Your task to perform on an android device: remove spam from my inbox in the gmail app Image 0: 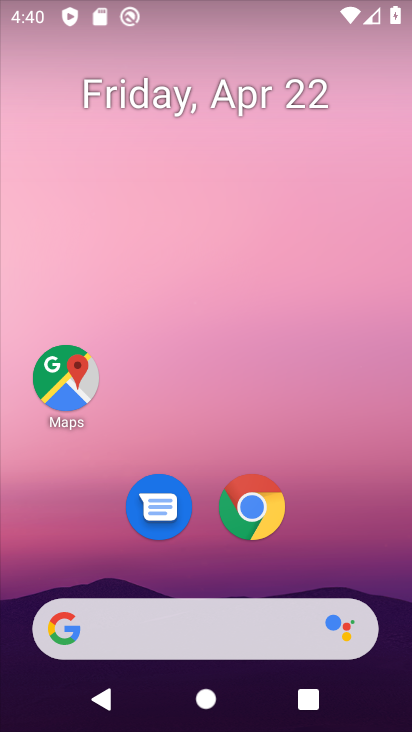
Step 0: click (279, 439)
Your task to perform on an android device: remove spam from my inbox in the gmail app Image 1: 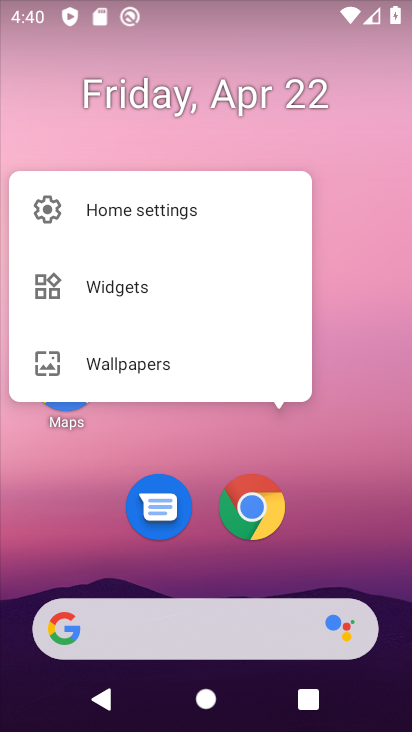
Step 1: press home button
Your task to perform on an android device: remove spam from my inbox in the gmail app Image 2: 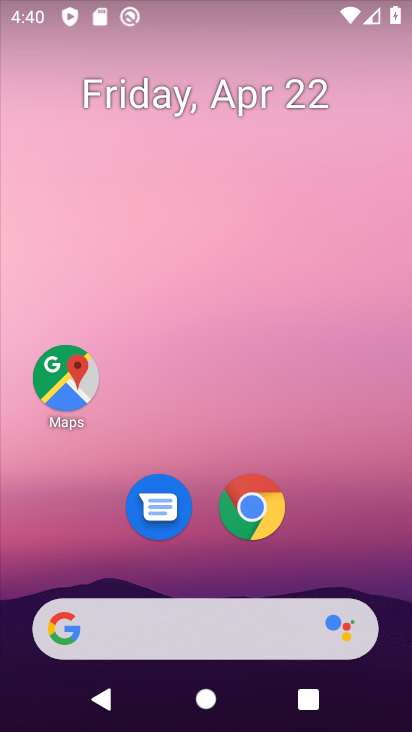
Step 2: drag from (245, 623) to (266, 176)
Your task to perform on an android device: remove spam from my inbox in the gmail app Image 3: 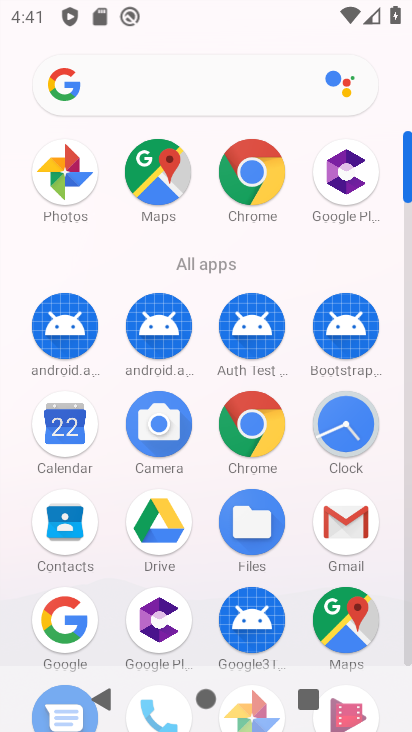
Step 3: drag from (192, 558) to (190, 252)
Your task to perform on an android device: remove spam from my inbox in the gmail app Image 4: 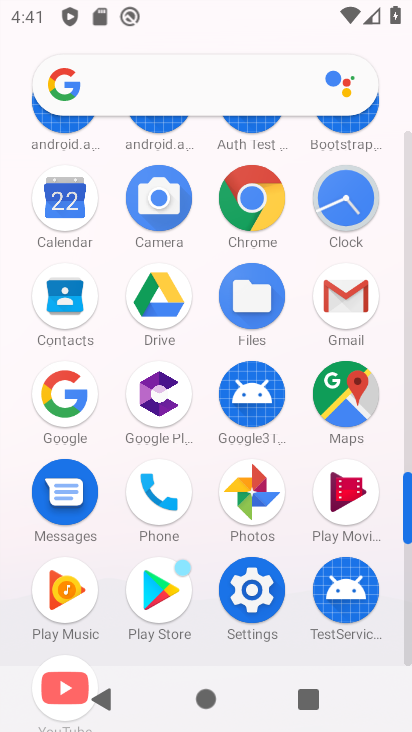
Step 4: drag from (237, 320) to (250, 585)
Your task to perform on an android device: remove spam from my inbox in the gmail app Image 5: 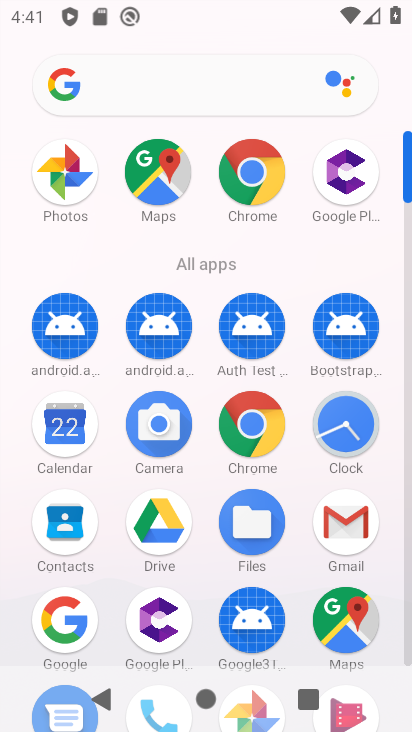
Step 5: click (367, 539)
Your task to perform on an android device: remove spam from my inbox in the gmail app Image 6: 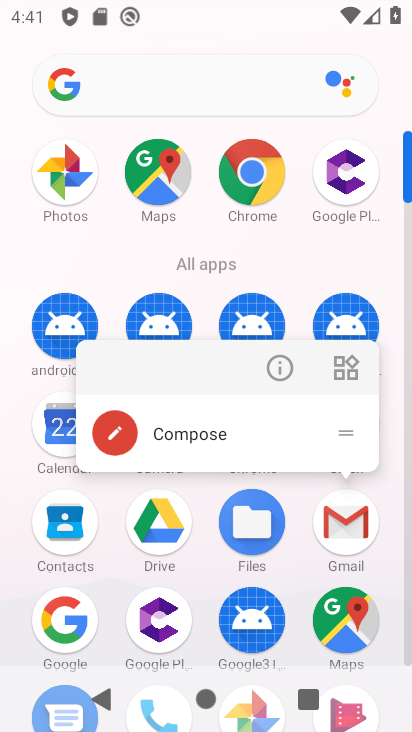
Step 6: click (367, 539)
Your task to perform on an android device: remove spam from my inbox in the gmail app Image 7: 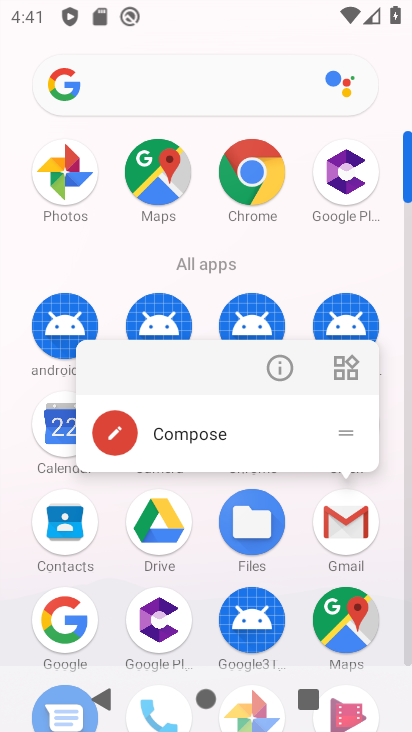
Step 7: click (352, 526)
Your task to perform on an android device: remove spam from my inbox in the gmail app Image 8: 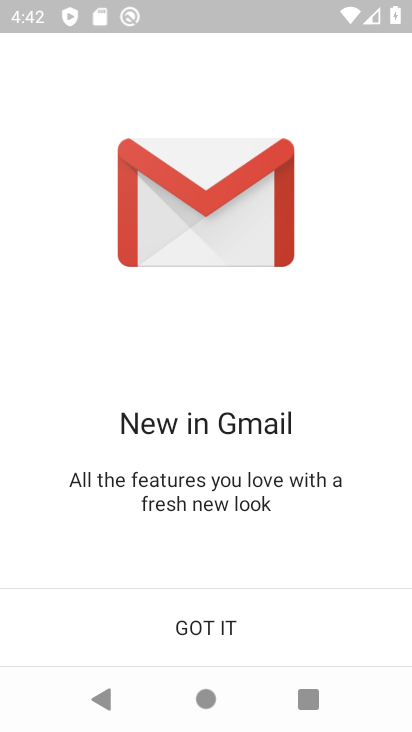
Step 8: click (121, 601)
Your task to perform on an android device: remove spam from my inbox in the gmail app Image 9: 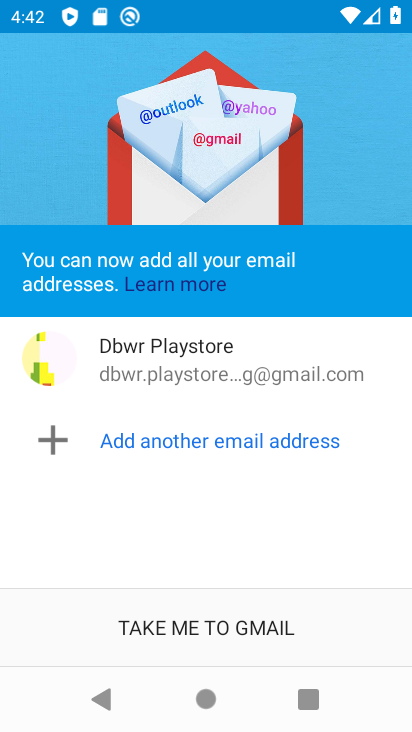
Step 9: click (100, 631)
Your task to perform on an android device: remove spam from my inbox in the gmail app Image 10: 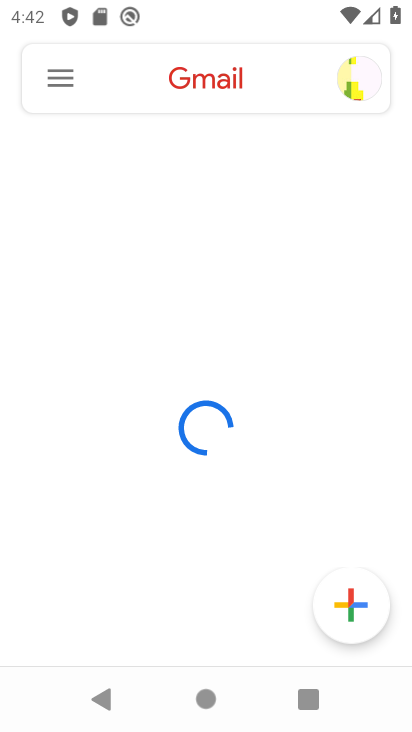
Step 10: click (54, 65)
Your task to perform on an android device: remove spam from my inbox in the gmail app Image 11: 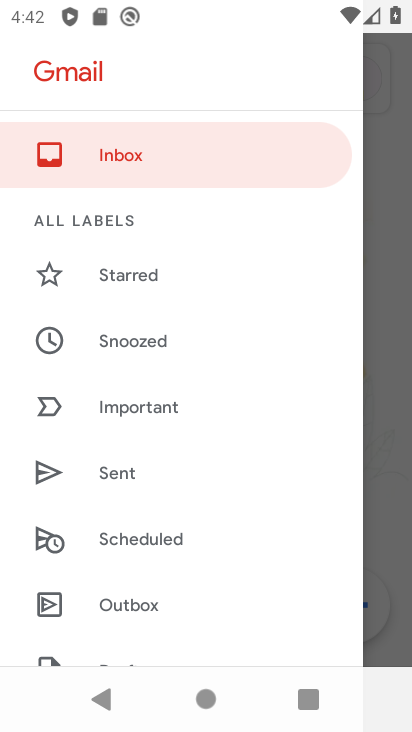
Step 11: drag from (115, 550) to (207, 252)
Your task to perform on an android device: remove spam from my inbox in the gmail app Image 12: 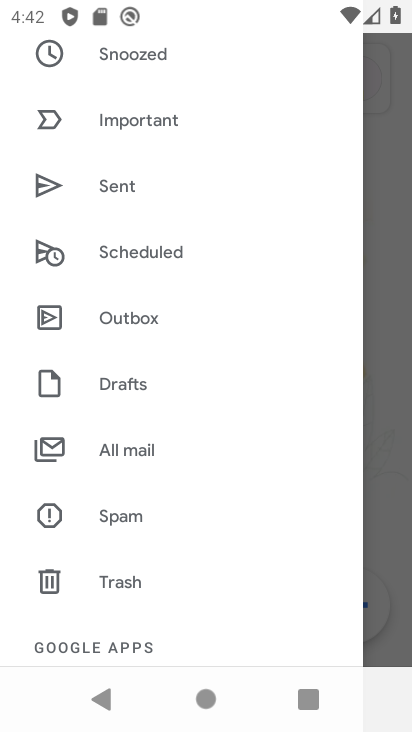
Step 12: click (113, 525)
Your task to perform on an android device: remove spam from my inbox in the gmail app Image 13: 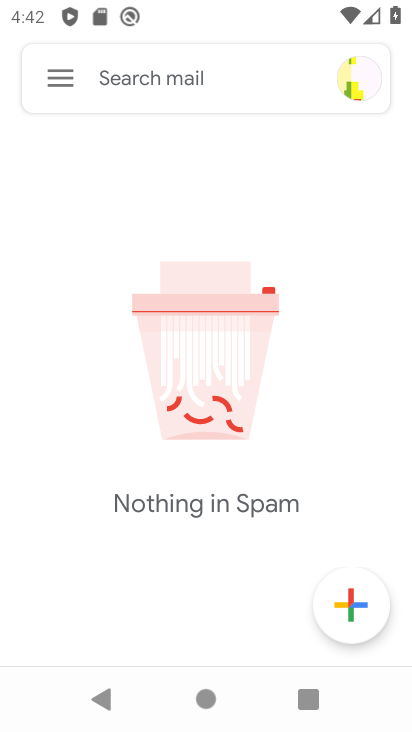
Step 13: task complete